Your task to perform on an android device: Go to sound settings Image 0: 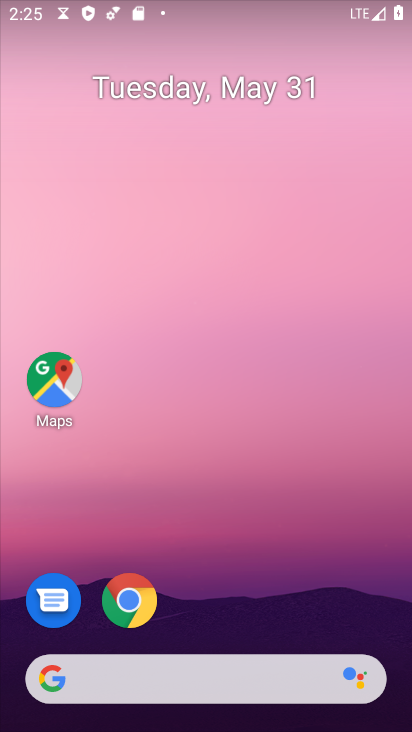
Step 0: press home button
Your task to perform on an android device: Go to sound settings Image 1: 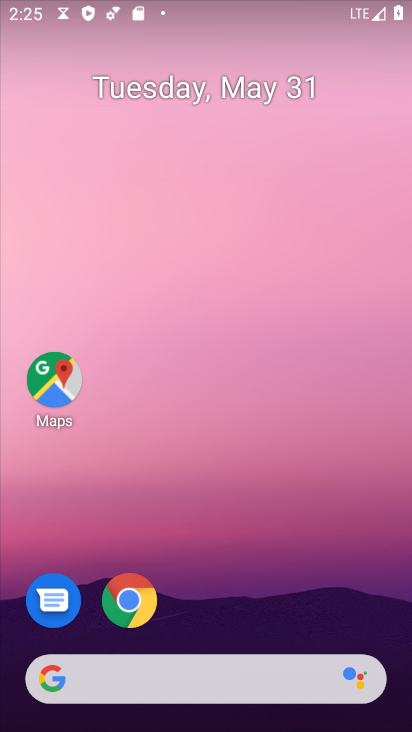
Step 1: drag from (211, 633) to (228, 99)
Your task to perform on an android device: Go to sound settings Image 2: 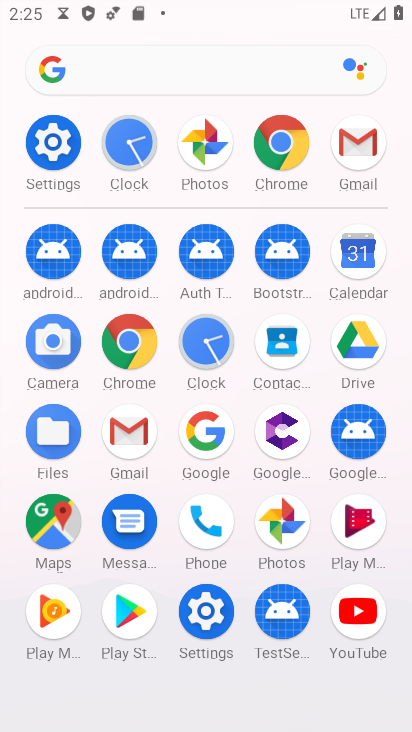
Step 2: click (53, 135)
Your task to perform on an android device: Go to sound settings Image 3: 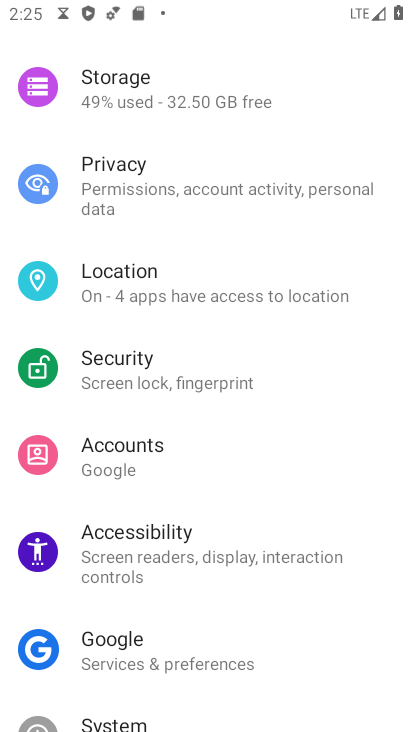
Step 3: drag from (155, 123) to (208, 690)
Your task to perform on an android device: Go to sound settings Image 4: 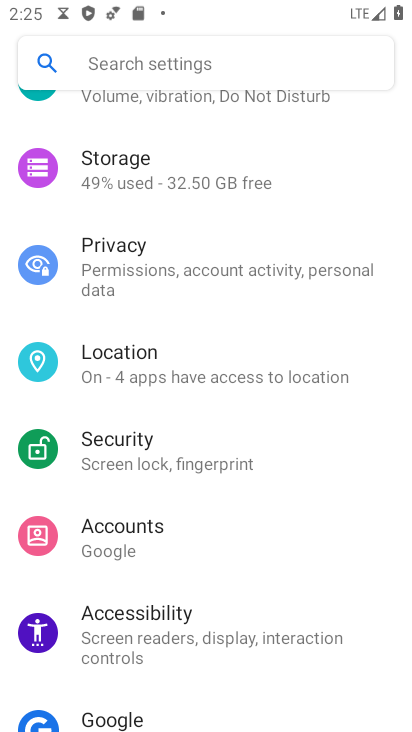
Step 4: drag from (191, 185) to (239, 717)
Your task to perform on an android device: Go to sound settings Image 5: 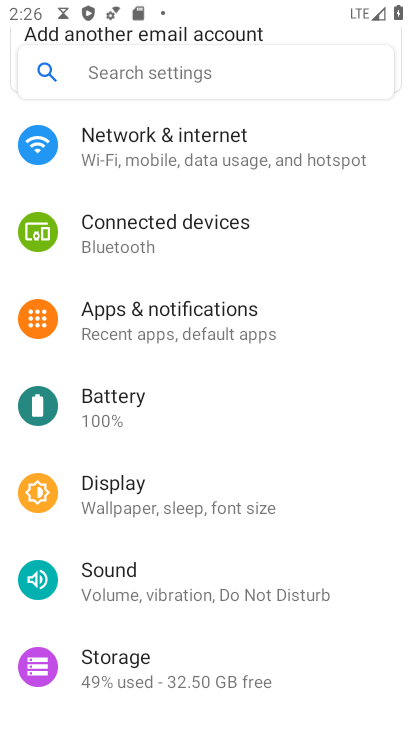
Step 5: click (167, 572)
Your task to perform on an android device: Go to sound settings Image 6: 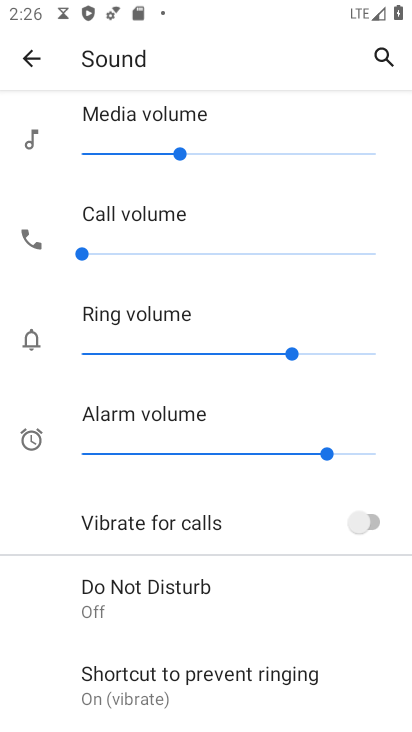
Step 6: drag from (203, 635) to (218, 316)
Your task to perform on an android device: Go to sound settings Image 7: 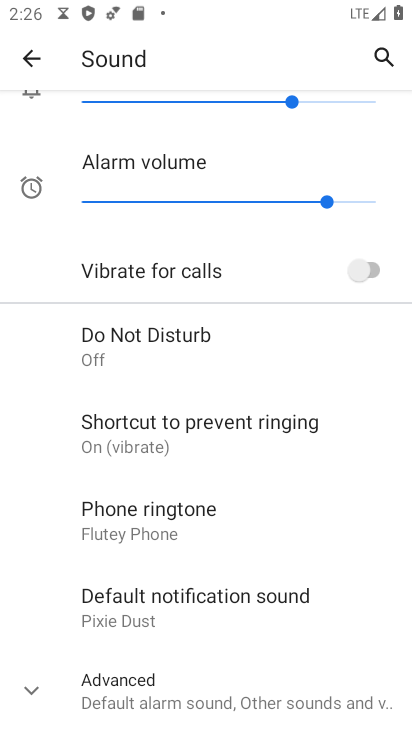
Step 7: click (29, 687)
Your task to perform on an android device: Go to sound settings Image 8: 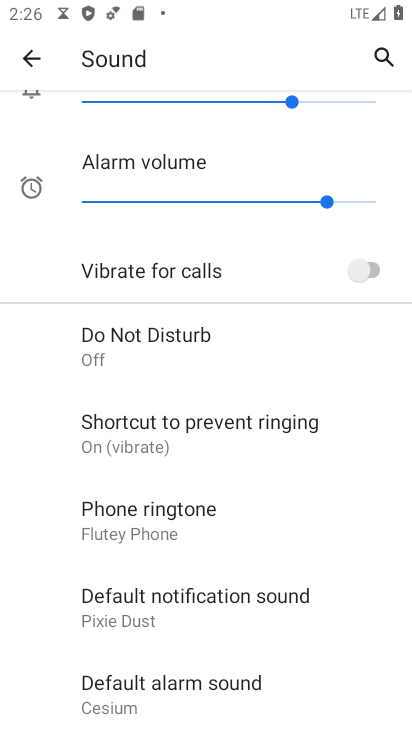
Step 8: task complete